Your task to perform on an android device: Open the map Image 0: 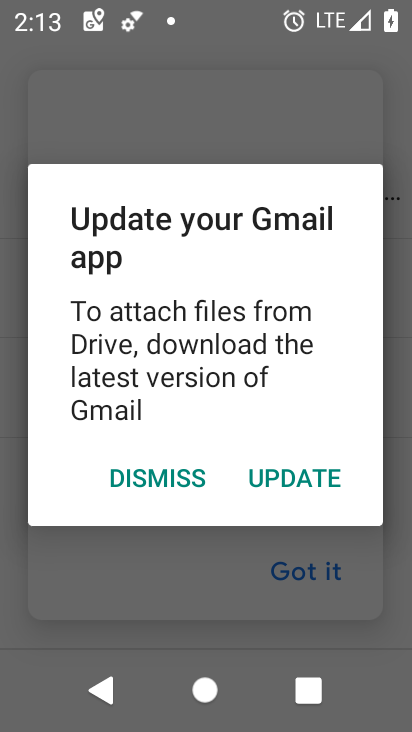
Step 0: press home button
Your task to perform on an android device: Open the map Image 1: 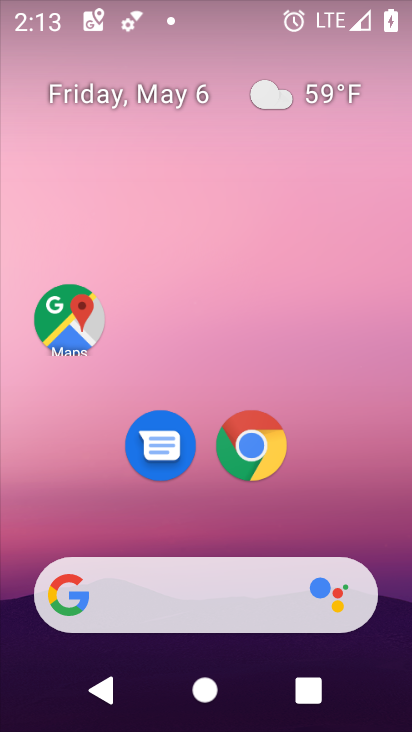
Step 1: drag from (310, 527) to (317, 48)
Your task to perform on an android device: Open the map Image 2: 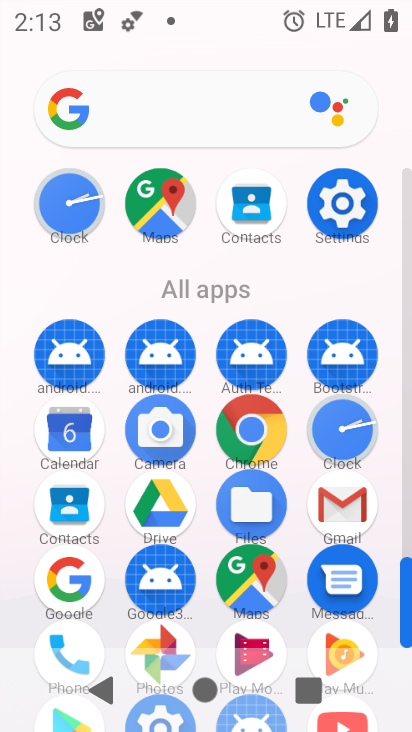
Step 2: click (255, 568)
Your task to perform on an android device: Open the map Image 3: 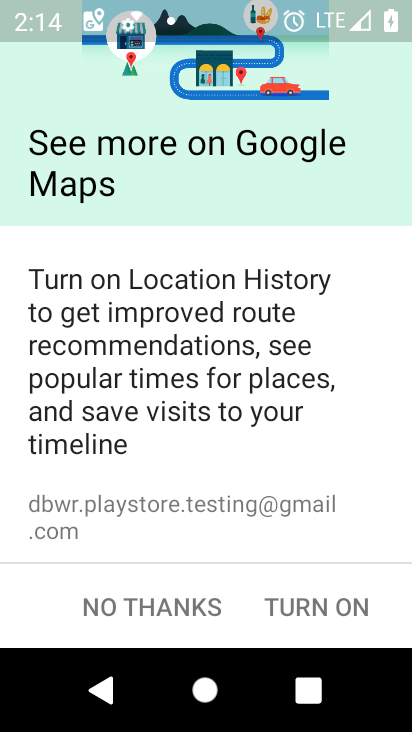
Step 3: click (200, 598)
Your task to perform on an android device: Open the map Image 4: 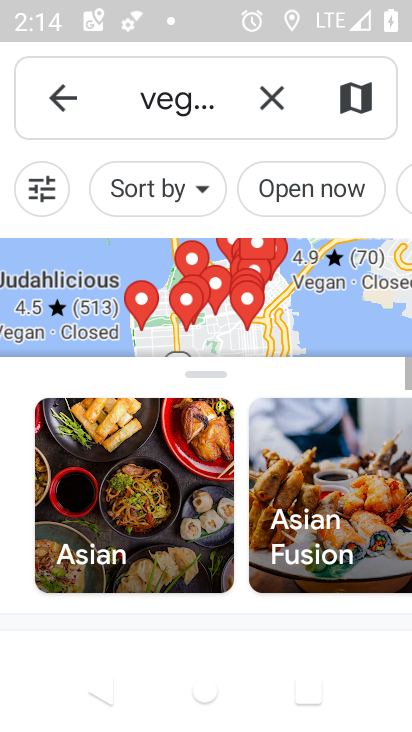
Step 4: click (71, 98)
Your task to perform on an android device: Open the map Image 5: 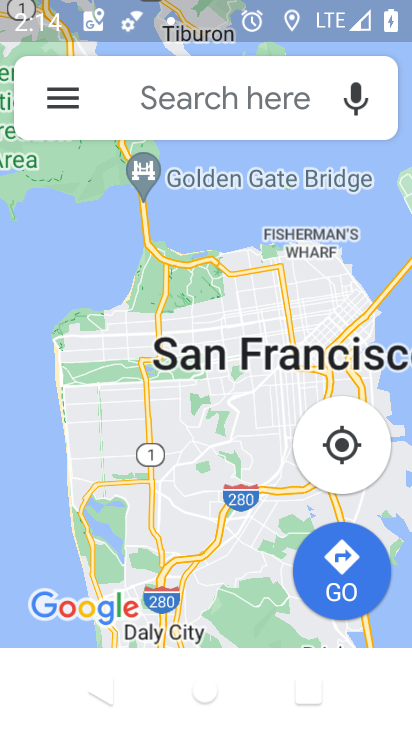
Step 5: task complete